Your task to perform on an android device: Open ESPN.com Image 0: 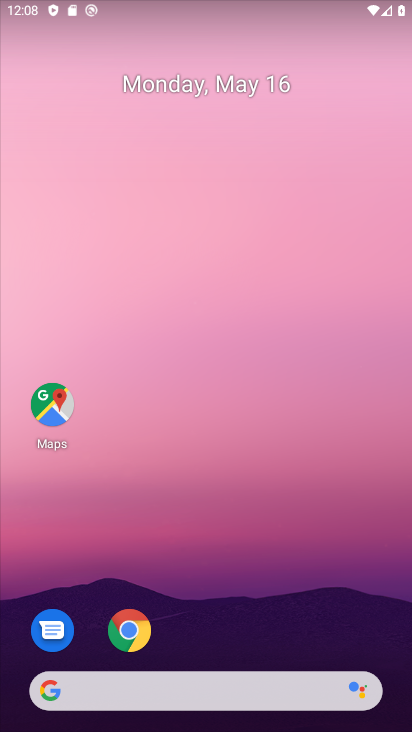
Step 0: drag from (213, 667) to (230, 18)
Your task to perform on an android device: Open ESPN.com Image 1: 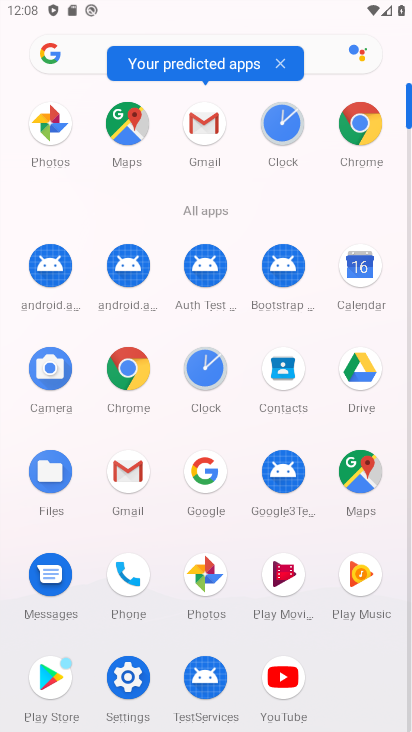
Step 1: click (211, 471)
Your task to perform on an android device: Open ESPN.com Image 2: 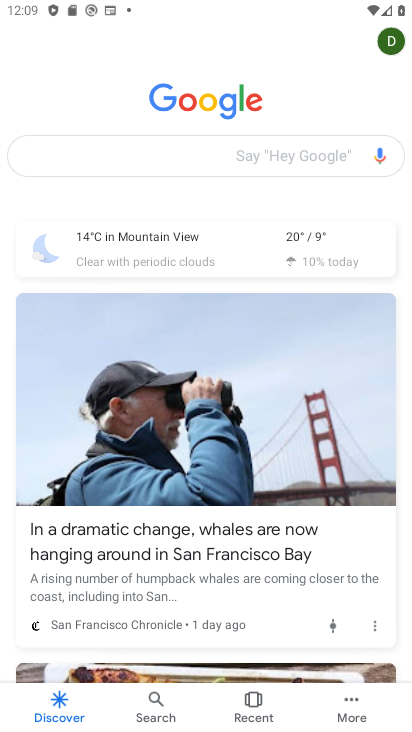
Step 2: click (224, 156)
Your task to perform on an android device: Open ESPN.com Image 3: 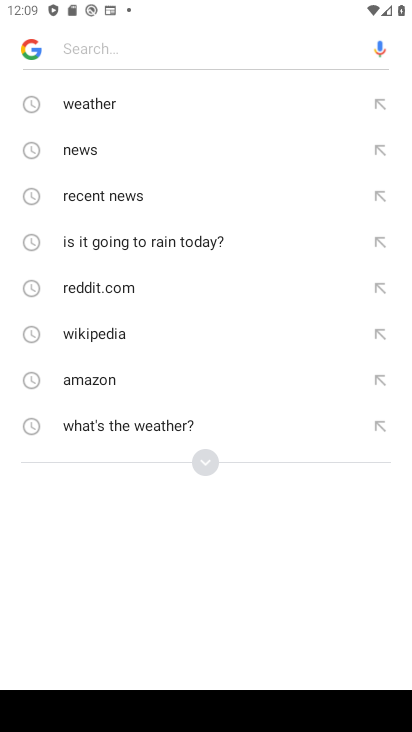
Step 3: type "ESPN.com"
Your task to perform on an android device: Open ESPN.com Image 4: 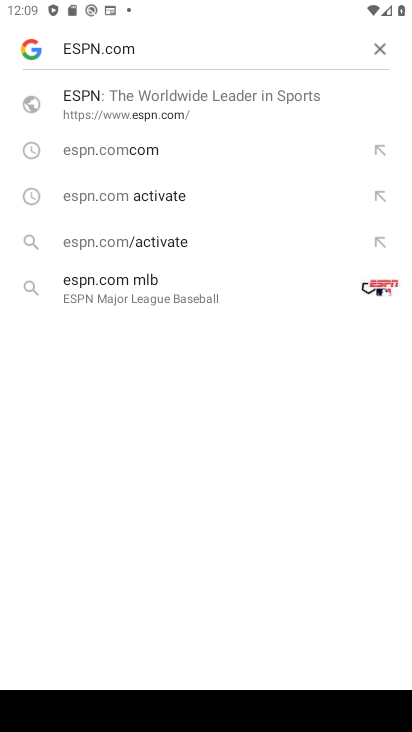
Step 4: click (156, 104)
Your task to perform on an android device: Open ESPN.com Image 5: 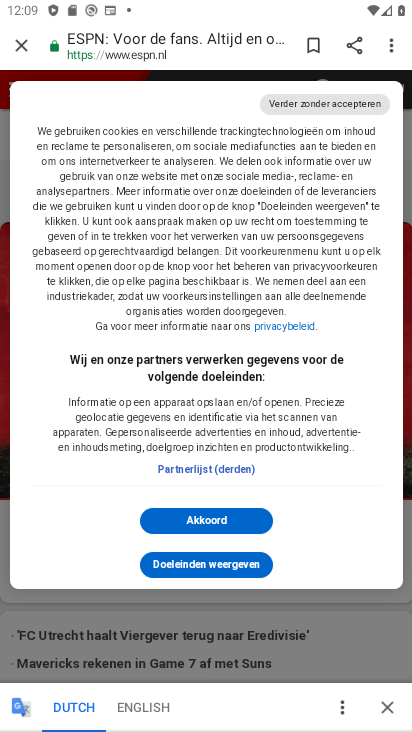
Step 5: task complete